Your task to perform on an android device: check out phone information Image 0: 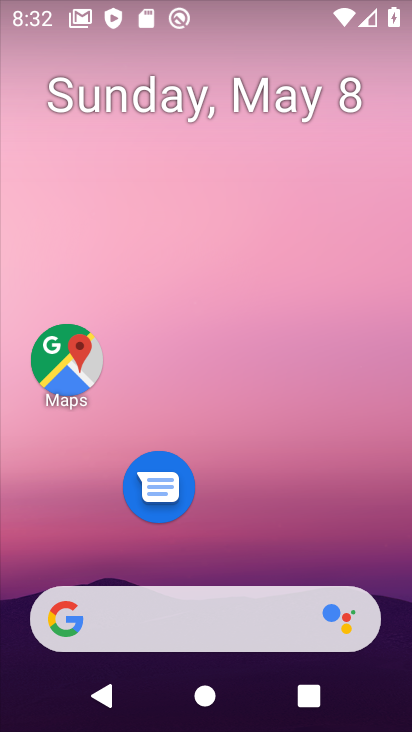
Step 0: drag from (303, 507) to (313, 157)
Your task to perform on an android device: check out phone information Image 1: 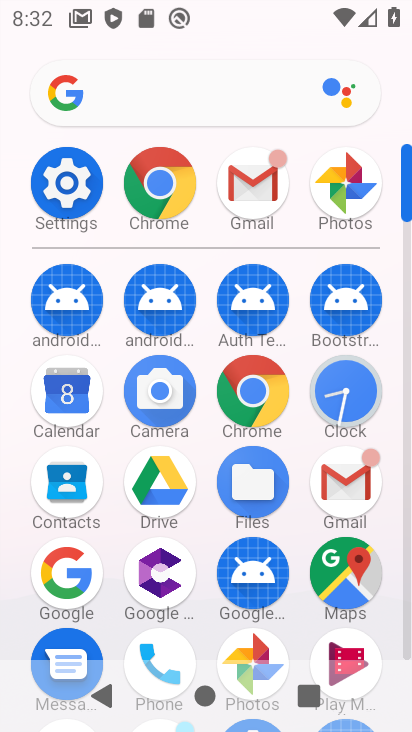
Step 1: click (66, 209)
Your task to perform on an android device: check out phone information Image 2: 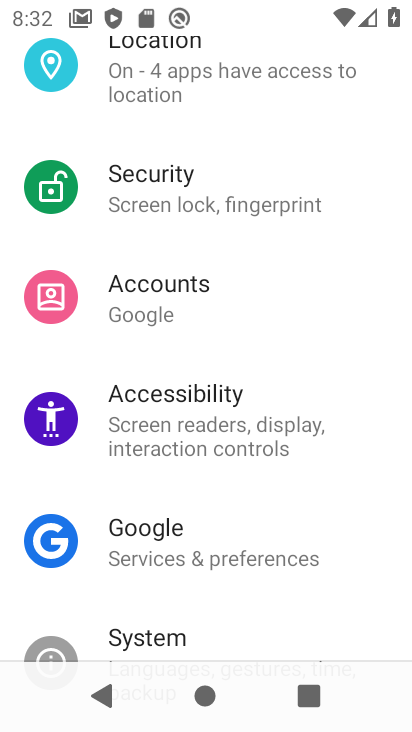
Step 2: drag from (204, 627) to (206, 368)
Your task to perform on an android device: check out phone information Image 3: 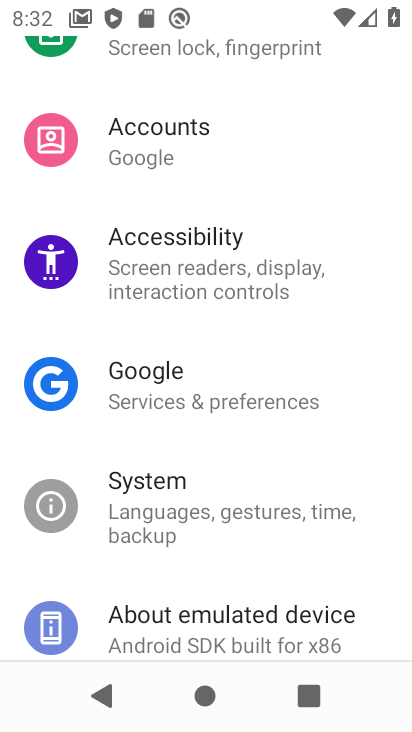
Step 3: click (208, 613)
Your task to perform on an android device: check out phone information Image 4: 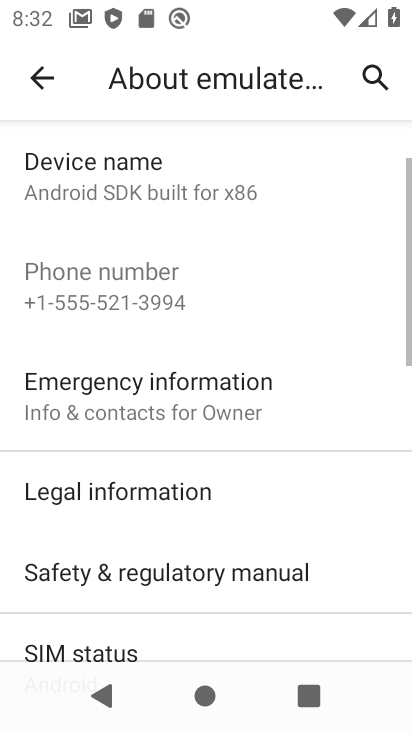
Step 4: task complete